Your task to perform on an android device: Open Maps and search for coffee Image 0: 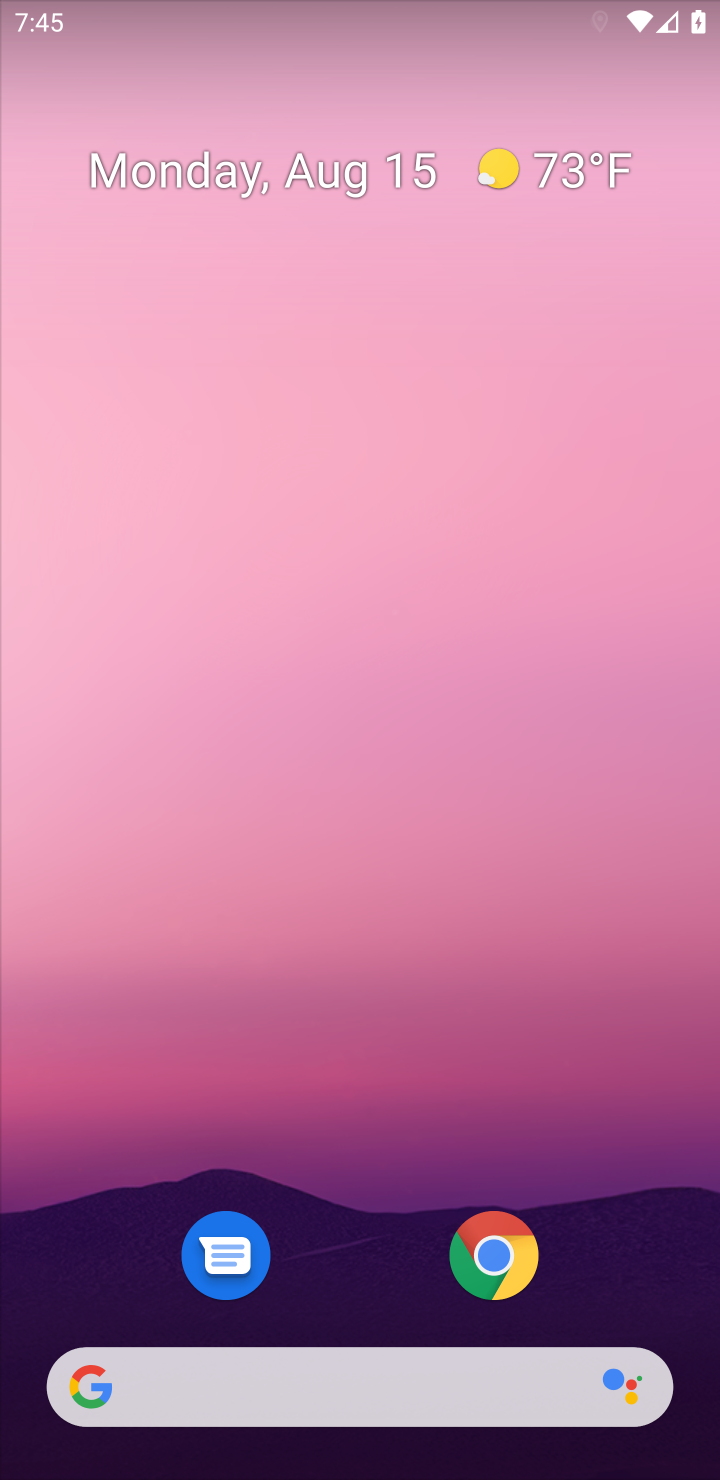
Step 0: drag from (376, 1301) to (440, 155)
Your task to perform on an android device: Open Maps and search for coffee Image 1: 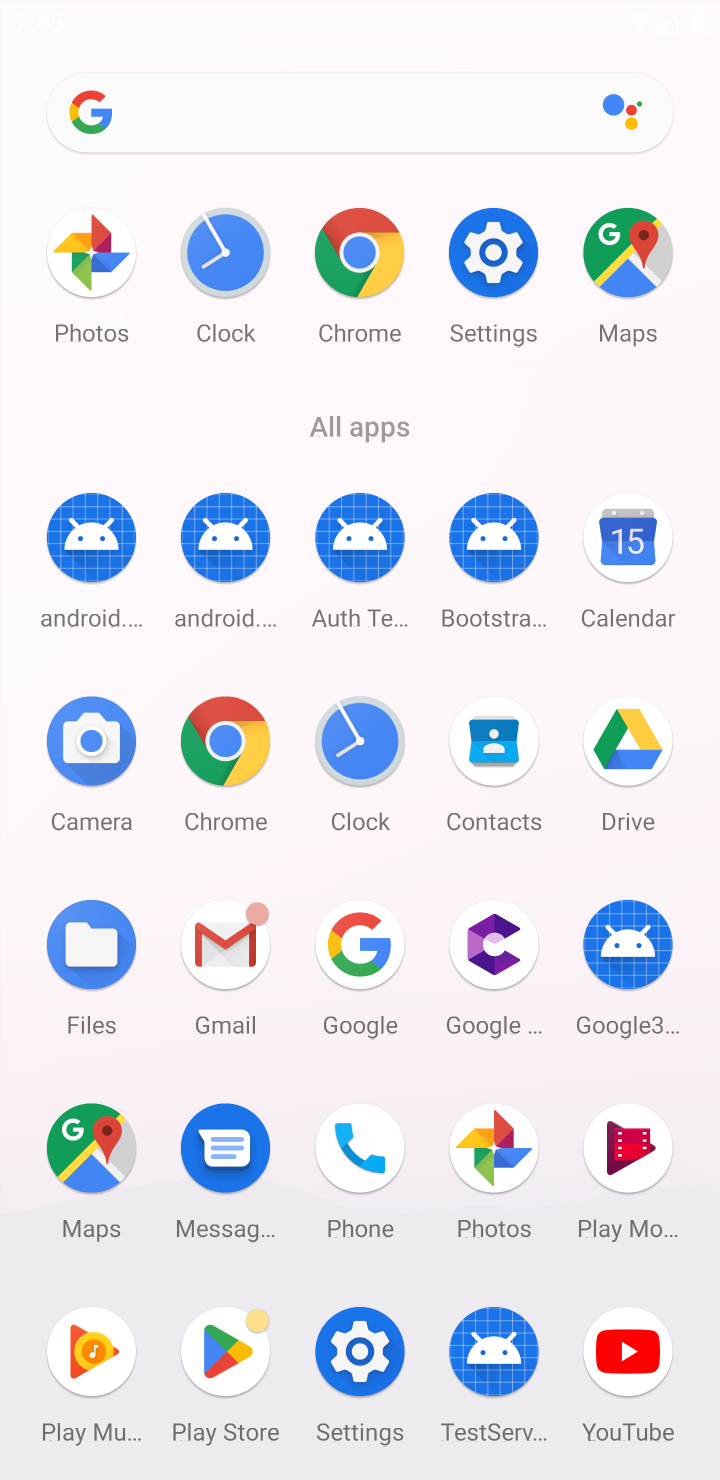
Step 1: click (85, 1138)
Your task to perform on an android device: Open Maps and search for coffee Image 2: 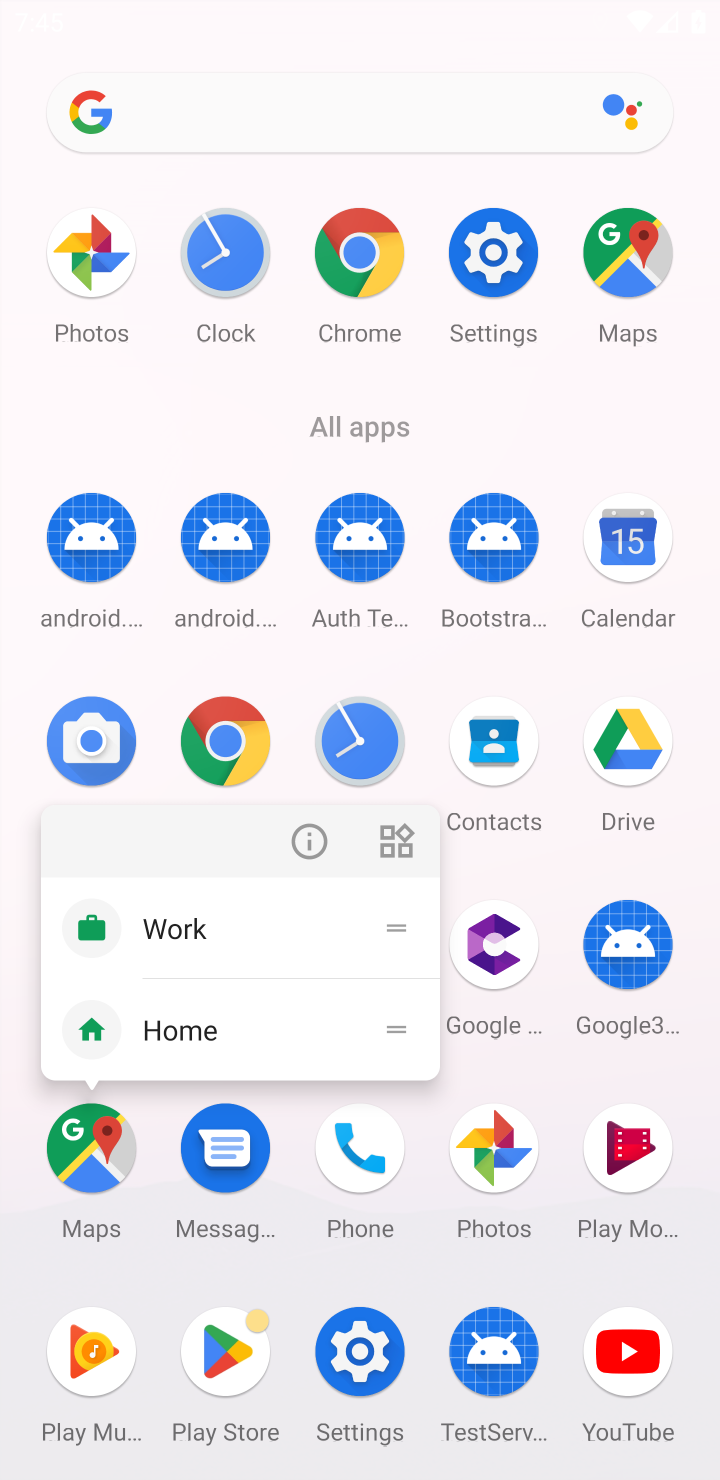
Step 2: click (96, 1144)
Your task to perform on an android device: Open Maps and search for coffee Image 3: 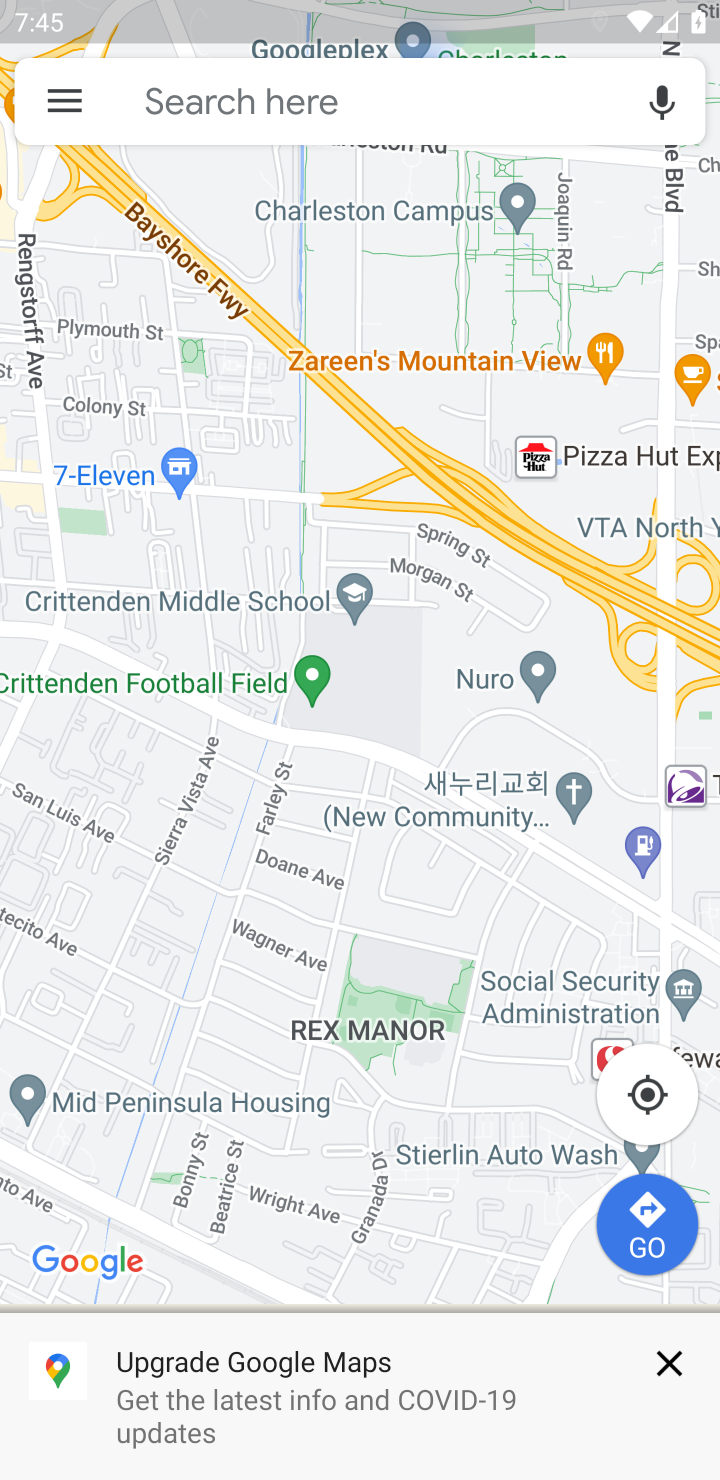
Step 3: click (181, 105)
Your task to perform on an android device: Open Maps and search for coffee Image 4: 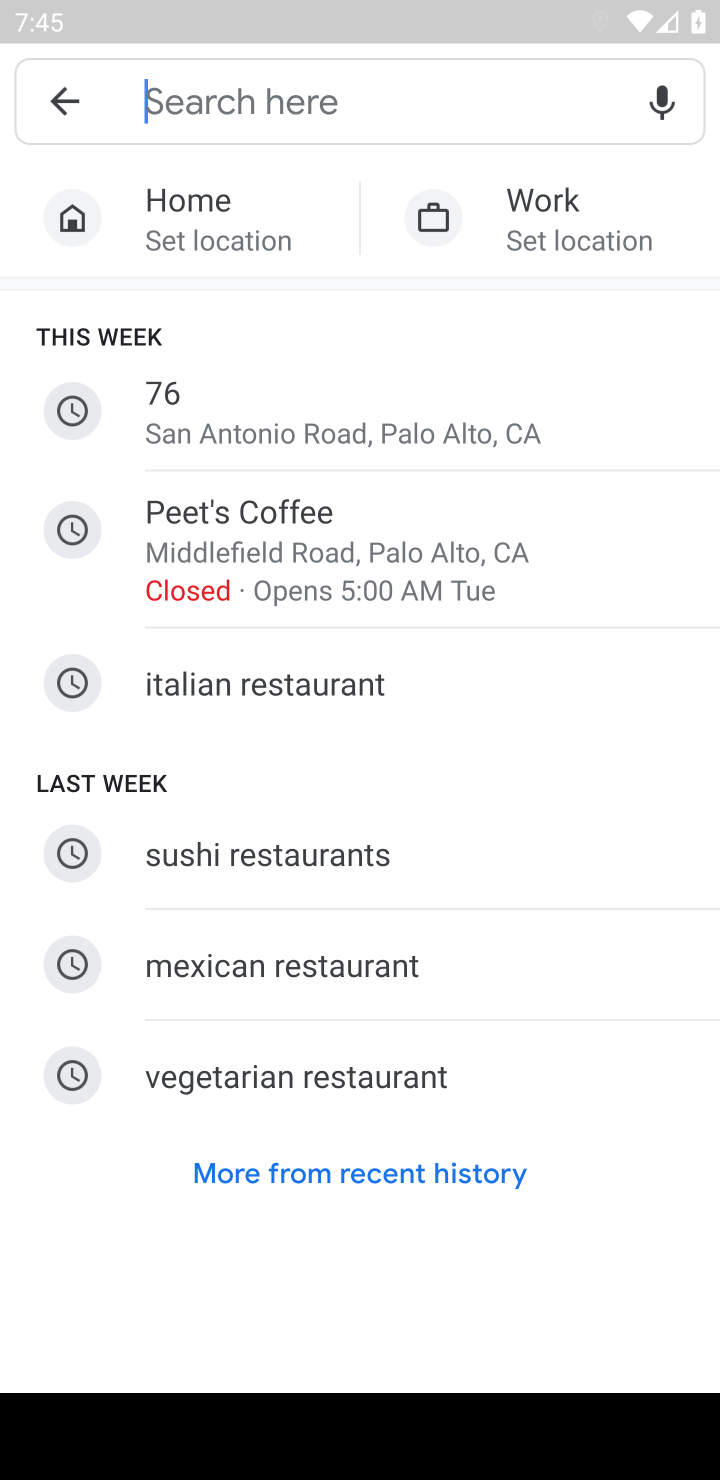
Step 4: type "coffee"
Your task to perform on an android device: Open Maps and search for coffee Image 5: 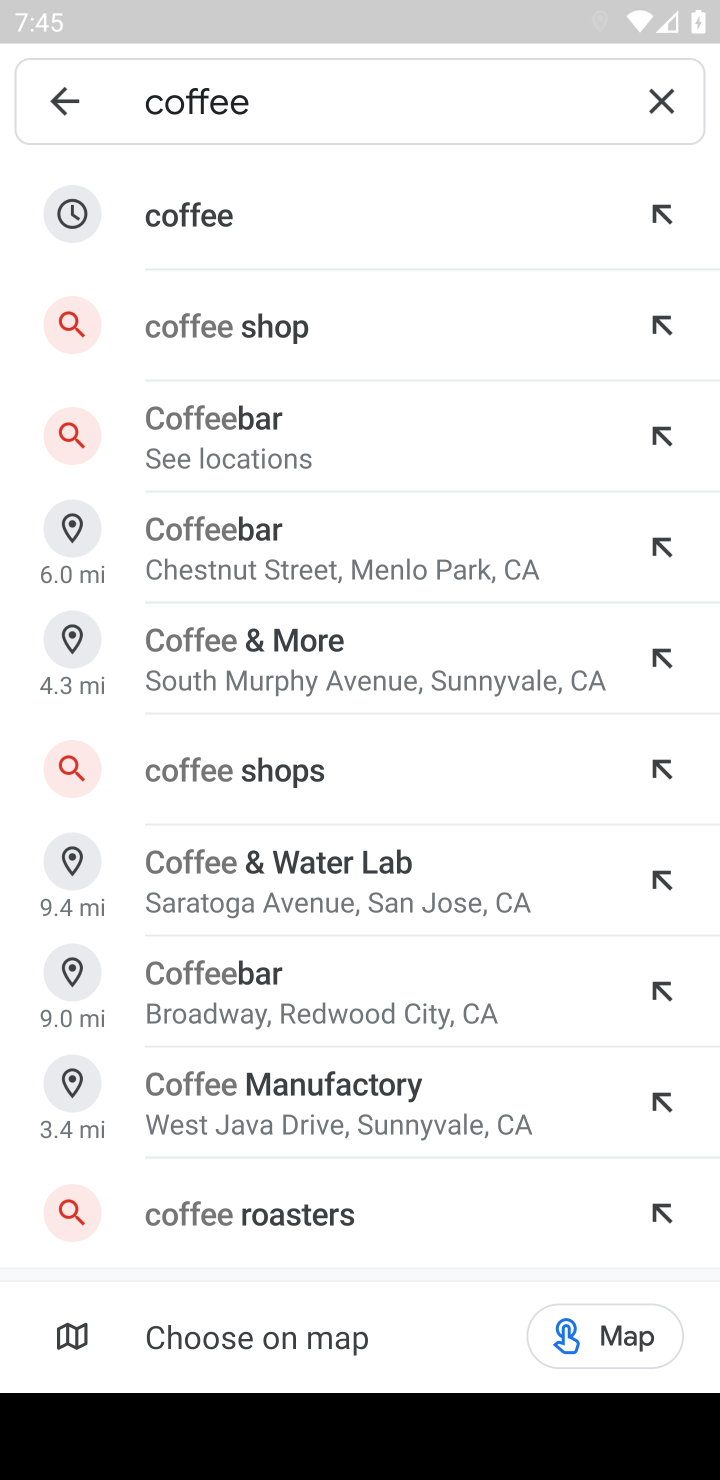
Step 5: click (255, 220)
Your task to perform on an android device: Open Maps and search for coffee Image 6: 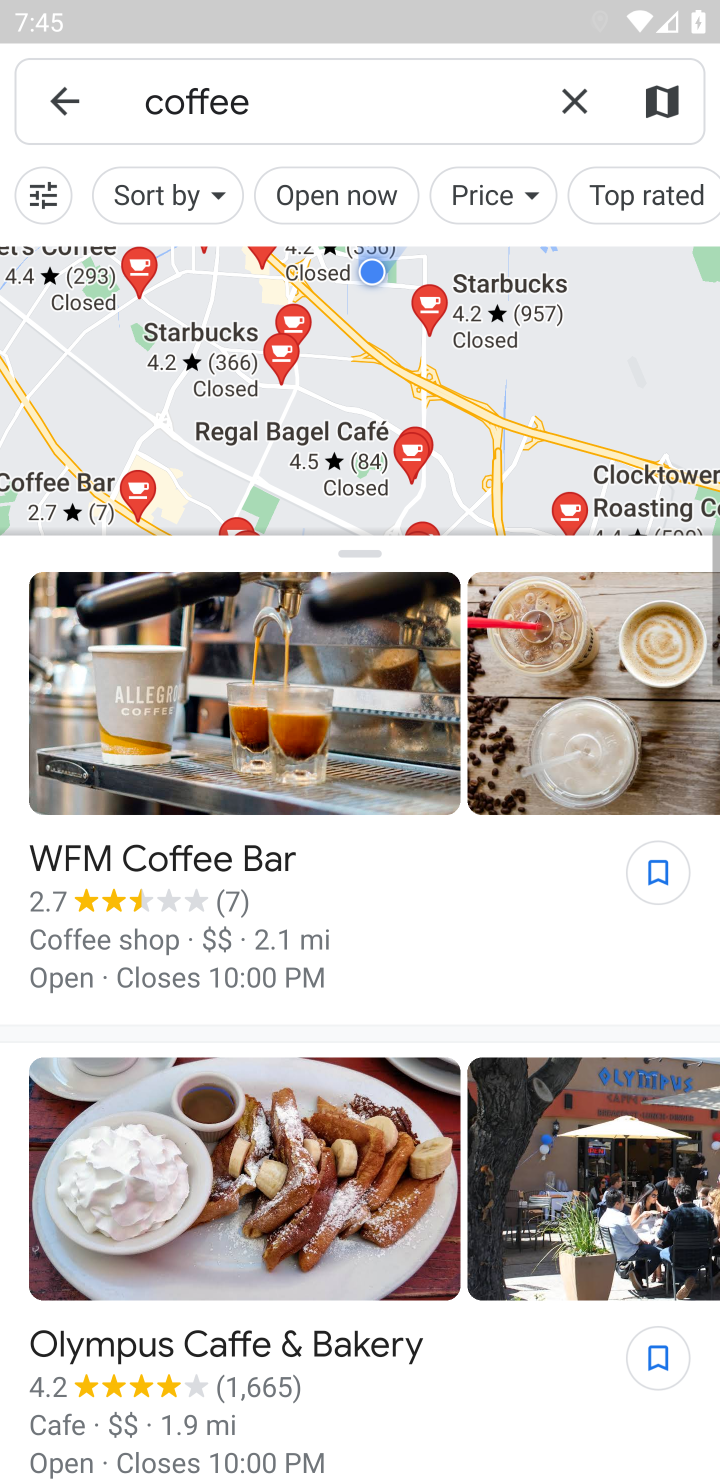
Step 6: drag from (381, 1047) to (408, 348)
Your task to perform on an android device: Open Maps and search for coffee Image 7: 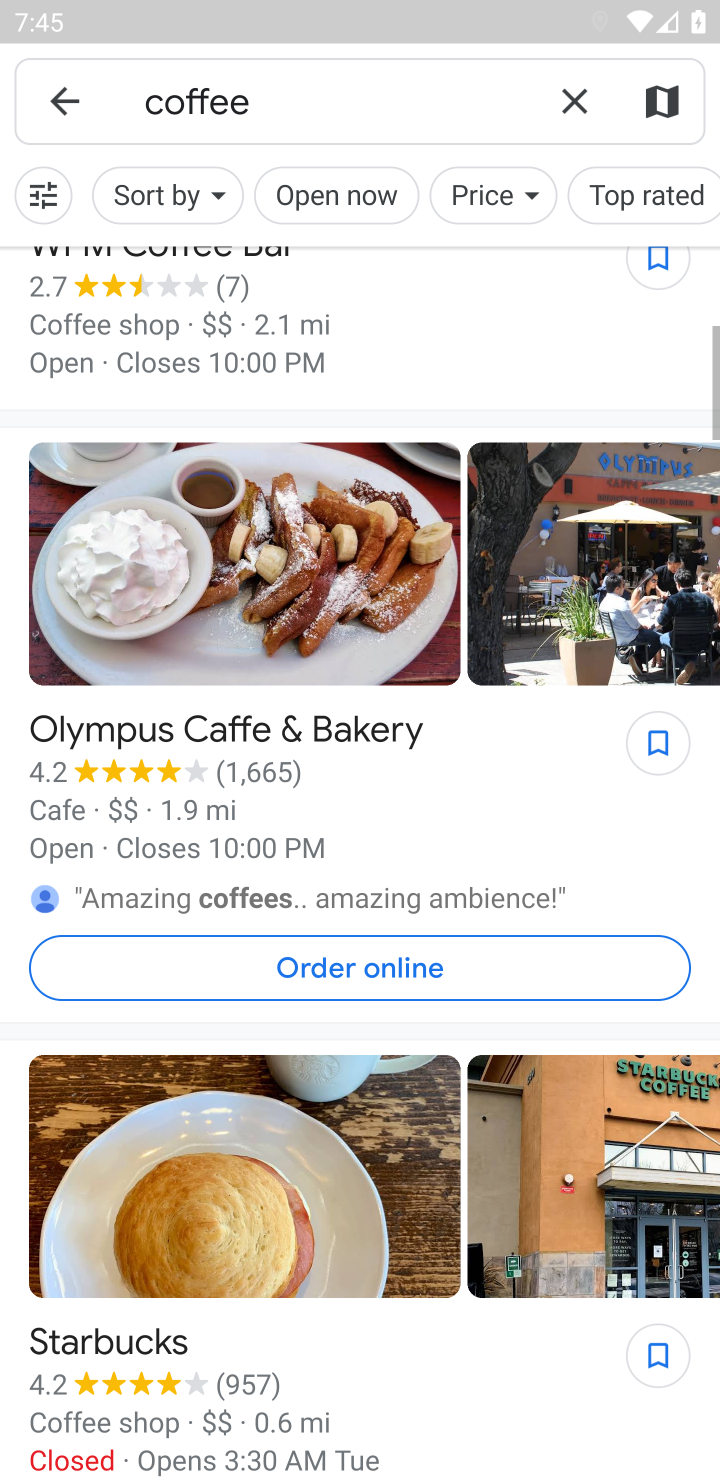
Step 7: drag from (438, 1344) to (443, 0)
Your task to perform on an android device: Open Maps and search for coffee Image 8: 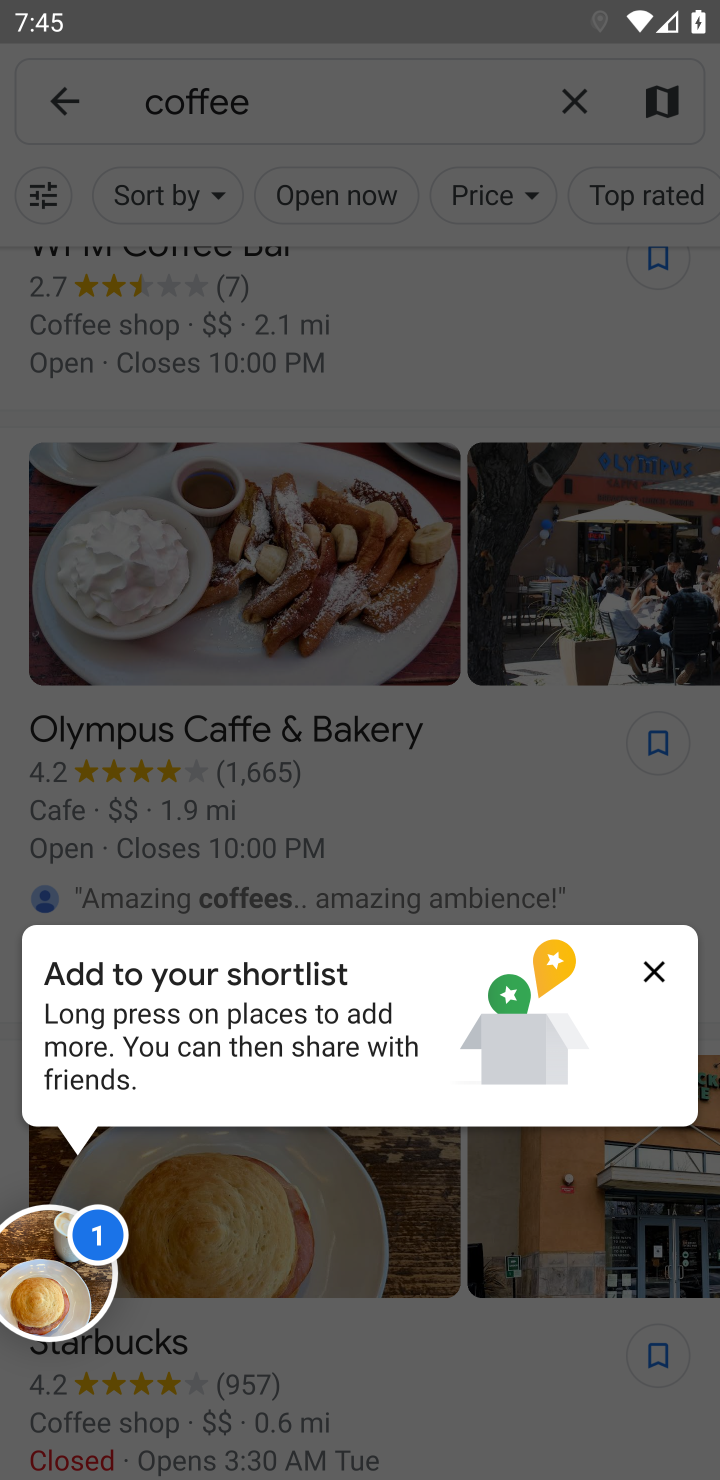
Step 8: click (652, 967)
Your task to perform on an android device: Open Maps and search for coffee Image 9: 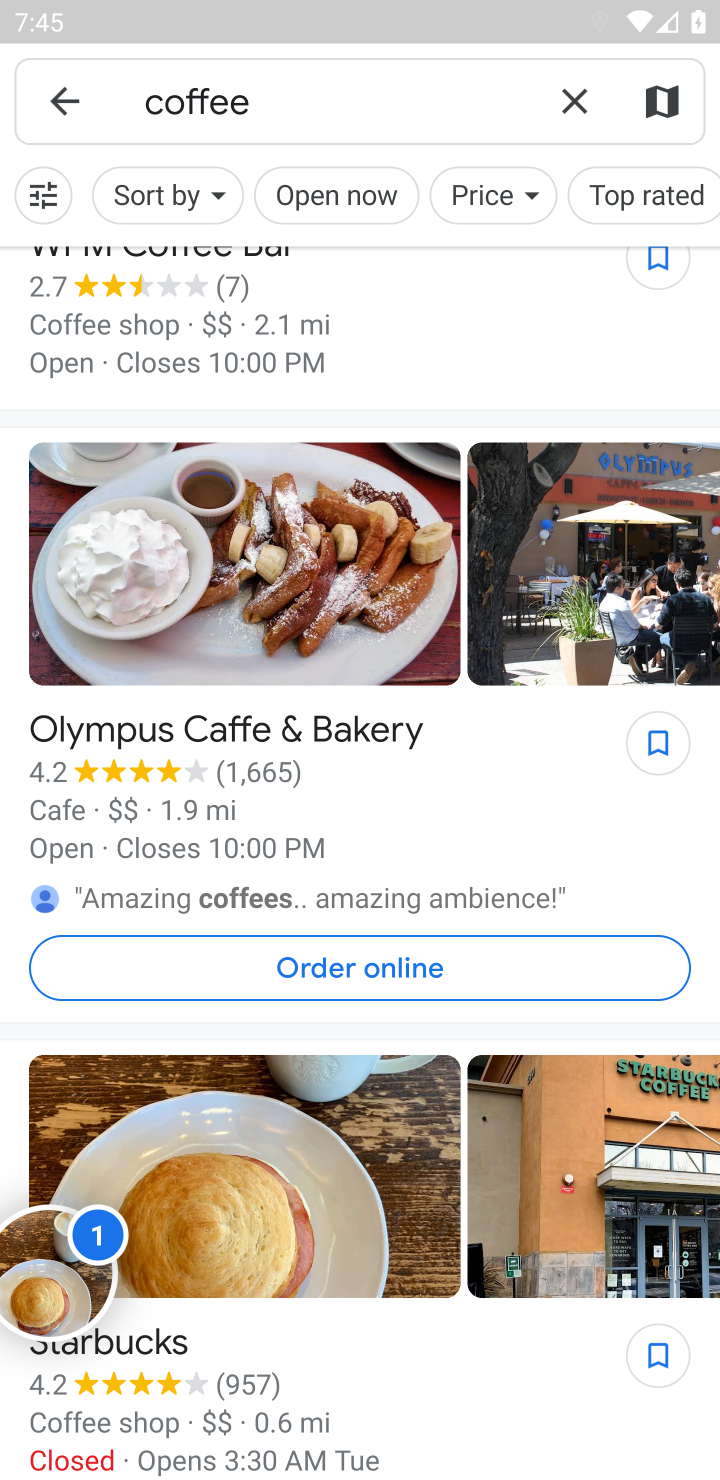
Step 9: task complete